Your task to perform on an android device: turn off smart reply in the gmail app Image 0: 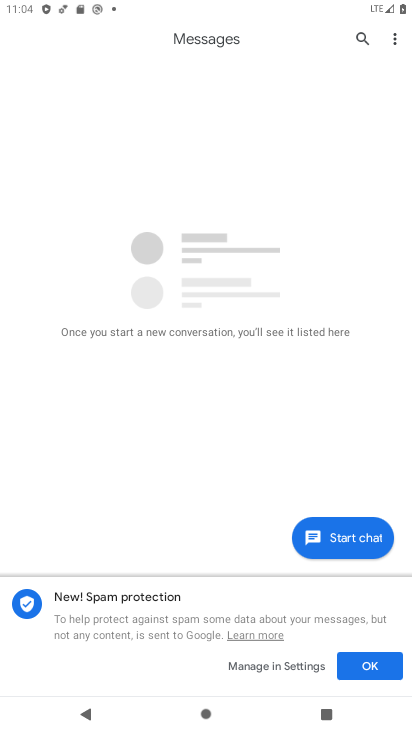
Step 0: press home button
Your task to perform on an android device: turn off smart reply in the gmail app Image 1: 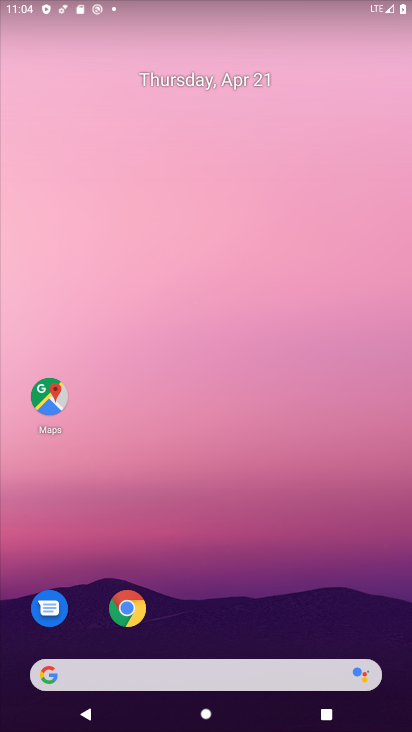
Step 1: drag from (224, 587) to (256, 15)
Your task to perform on an android device: turn off smart reply in the gmail app Image 2: 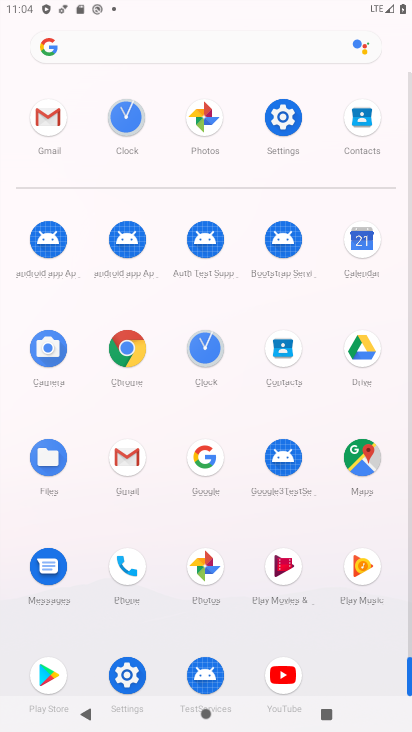
Step 2: click (48, 118)
Your task to perform on an android device: turn off smart reply in the gmail app Image 3: 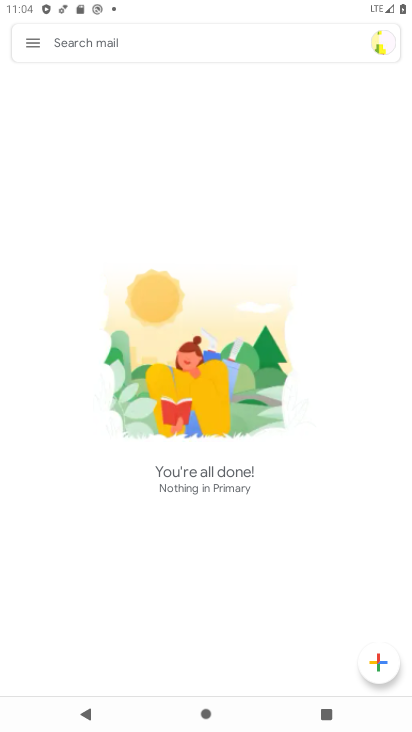
Step 3: click (32, 43)
Your task to perform on an android device: turn off smart reply in the gmail app Image 4: 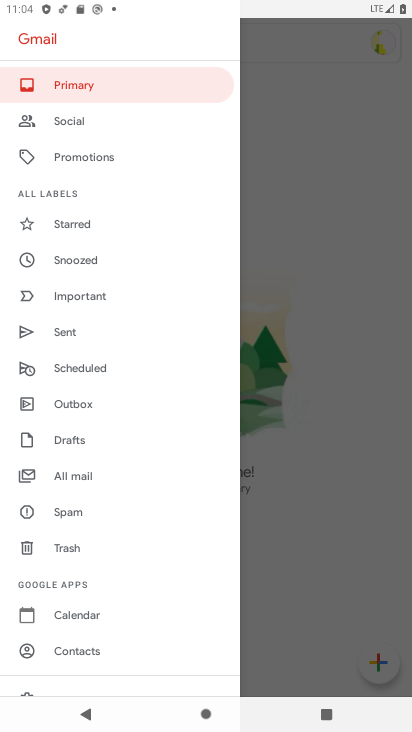
Step 4: drag from (128, 525) to (174, 388)
Your task to perform on an android device: turn off smart reply in the gmail app Image 5: 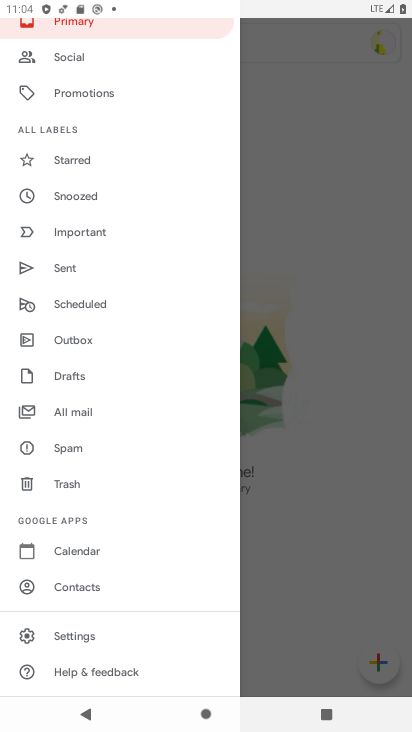
Step 5: click (79, 634)
Your task to perform on an android device: turn off smart reply in the gmail app Image 6: 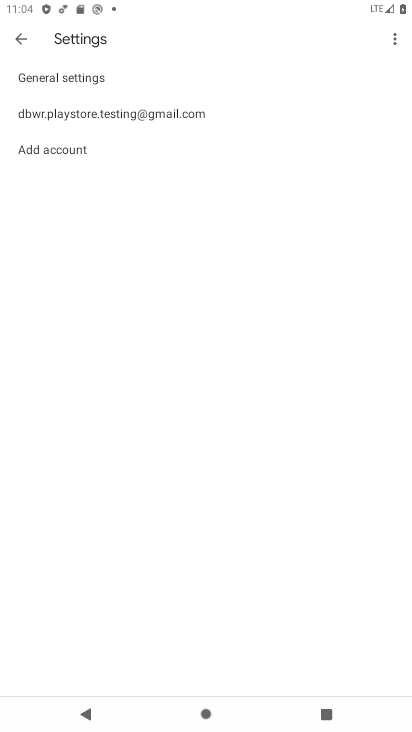
Step 6: click (138, 111)
Your task to perform on an android device: turn off smart reply in the gmail app Image 7: 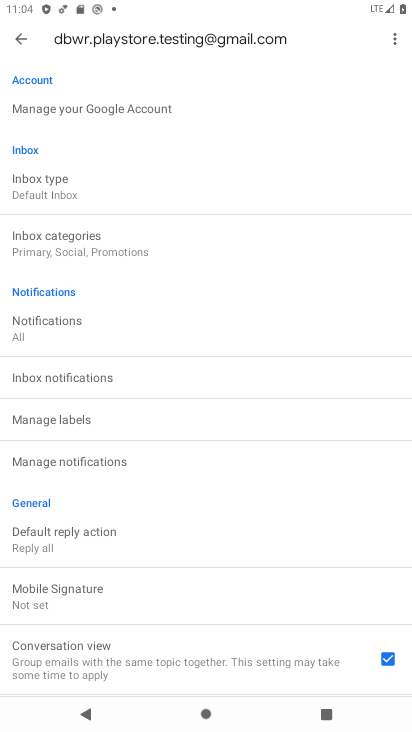
Step 7: drag from (135, 487) to (207, 368)
Your task to perform on an android device: turn off smart reply in the gmail app Image 8: 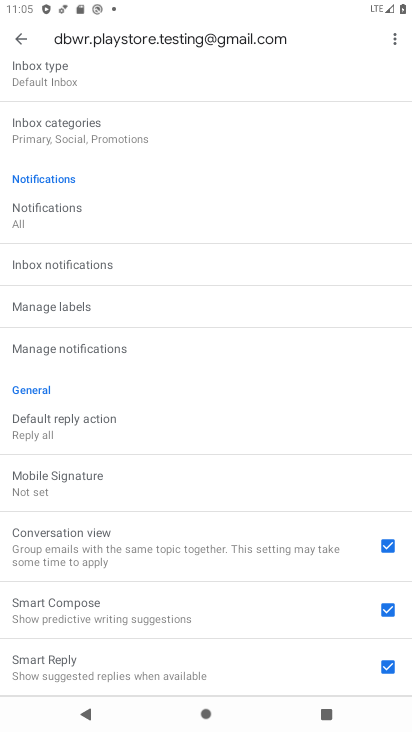
Step 8: drag from (167, 452) to (206, 330)
Your task to perform on an android device: turn off smart reply in the gmail app Image 9: 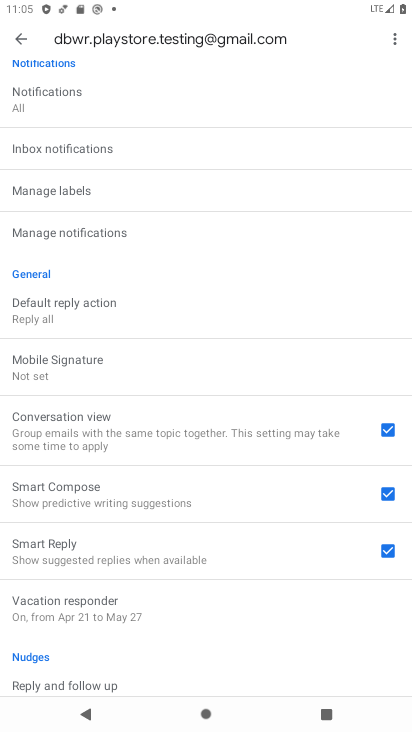
Step 9: click (389, 556)
Your task to perform on an android device: turn off smart reply in the gmail app Image 10: 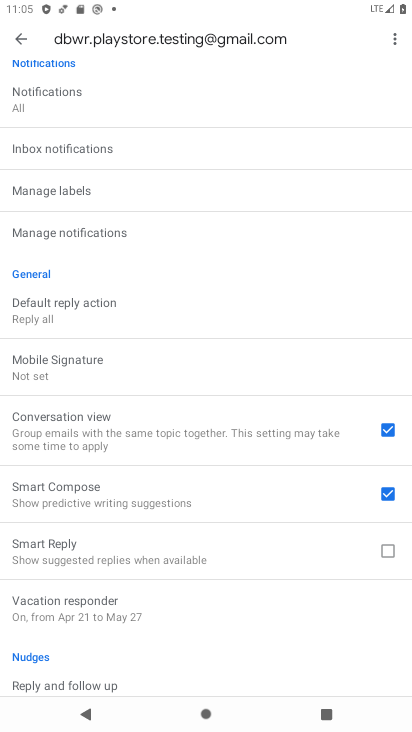
Step 10: task complete